Your task to perform on an android device: Show me recent news Image 0: 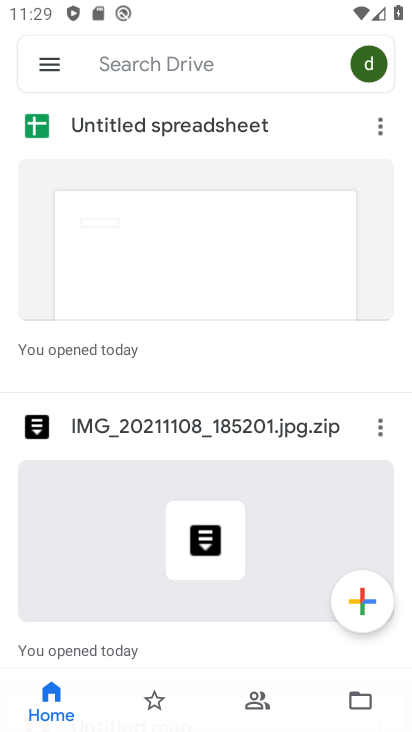
Step 0: press home button
Your task to perform on an android device: Show me recent news Image 1: 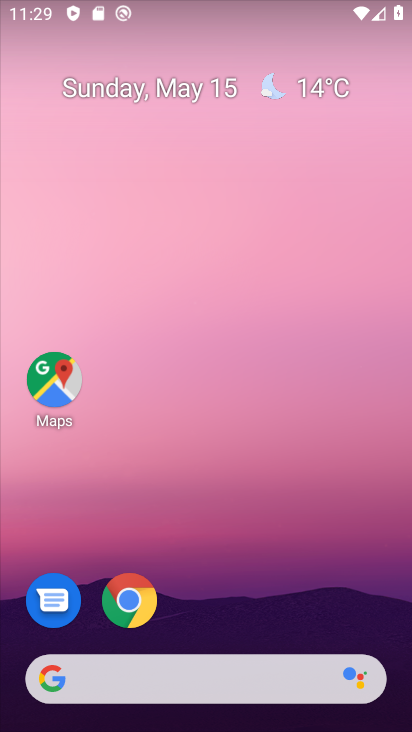
Step 1: task complete